Your task to perform on an android device: What's the weather today? Image 0: 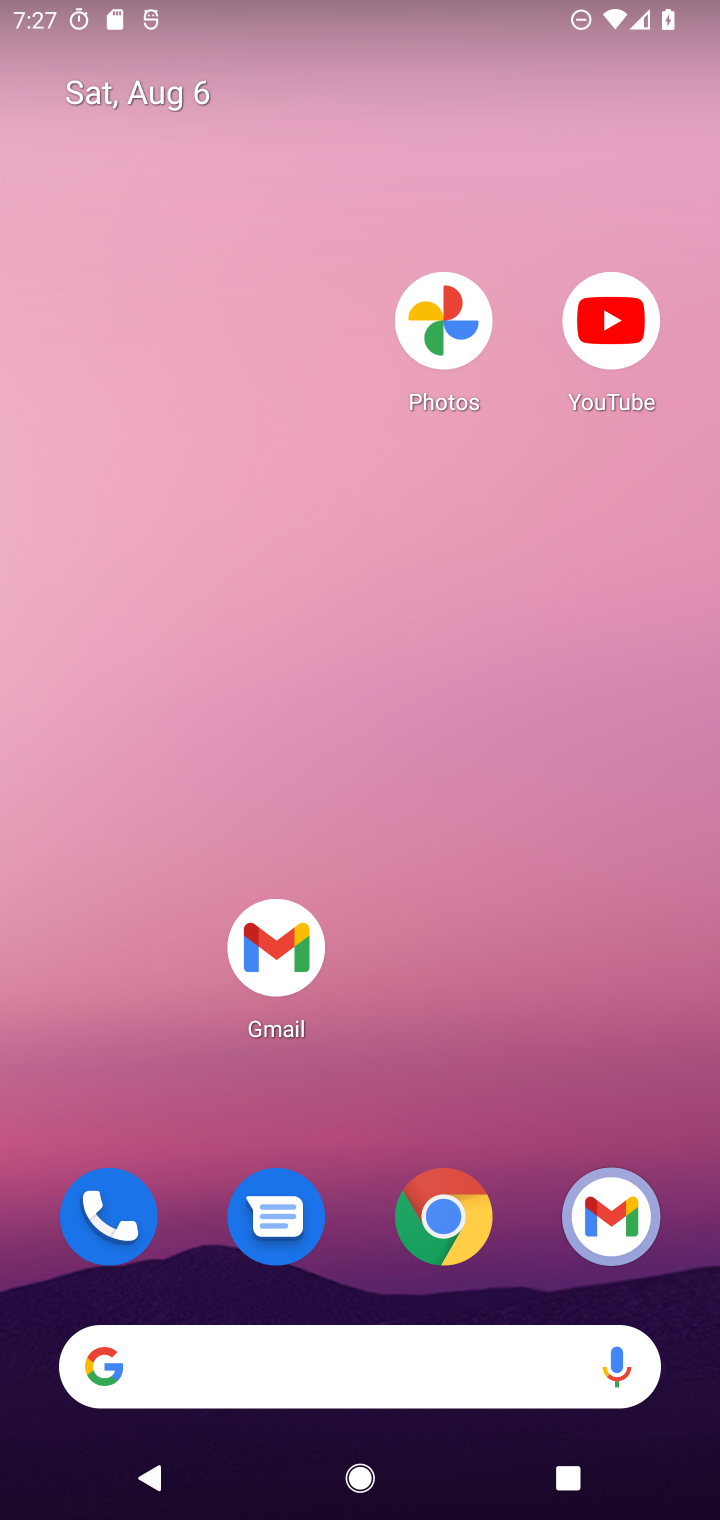
Step 0: drag from (518, 957) to (512, 369)
Your task to perform on an android device: What's the weather today? Image 1: 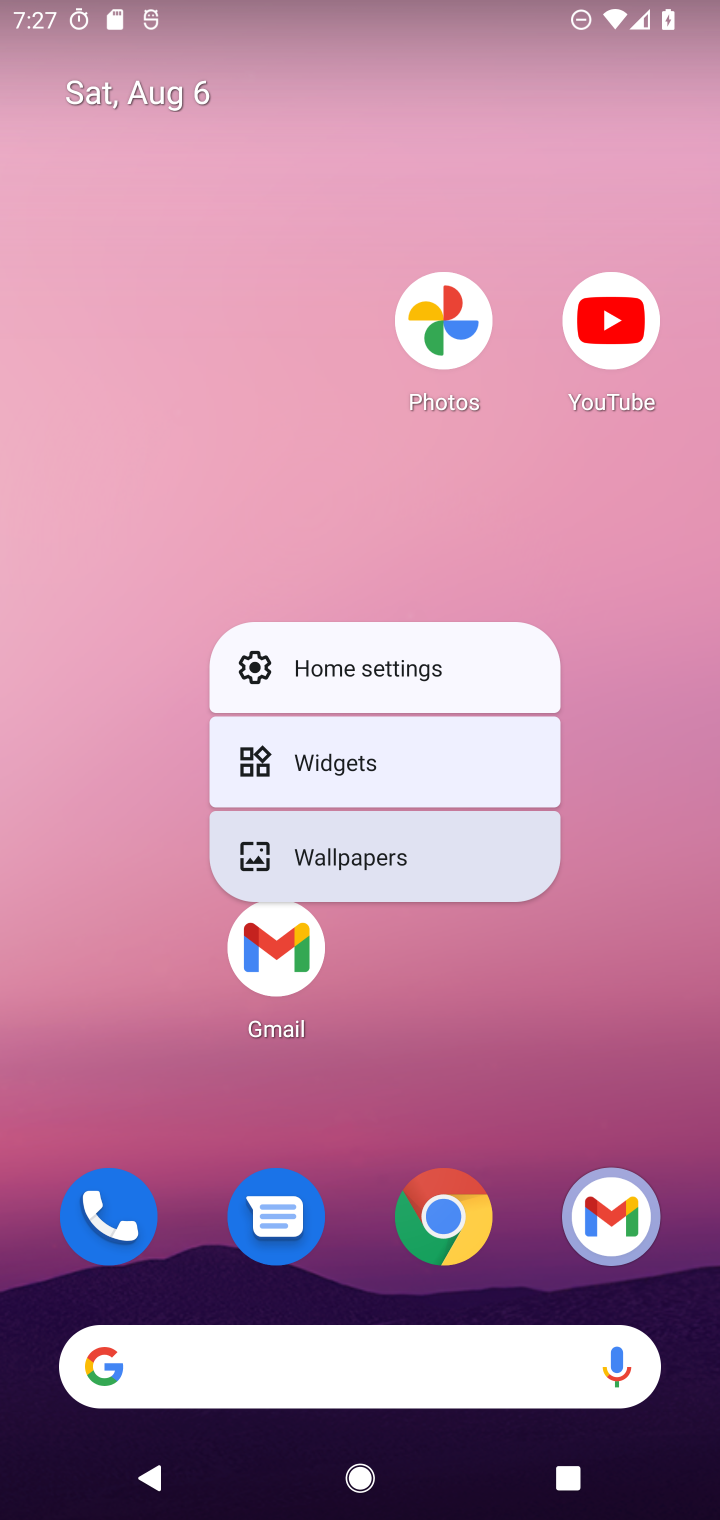
Step 1: click (537, 596)
Your task to perform on an android device: What's the weather today? Image 2: 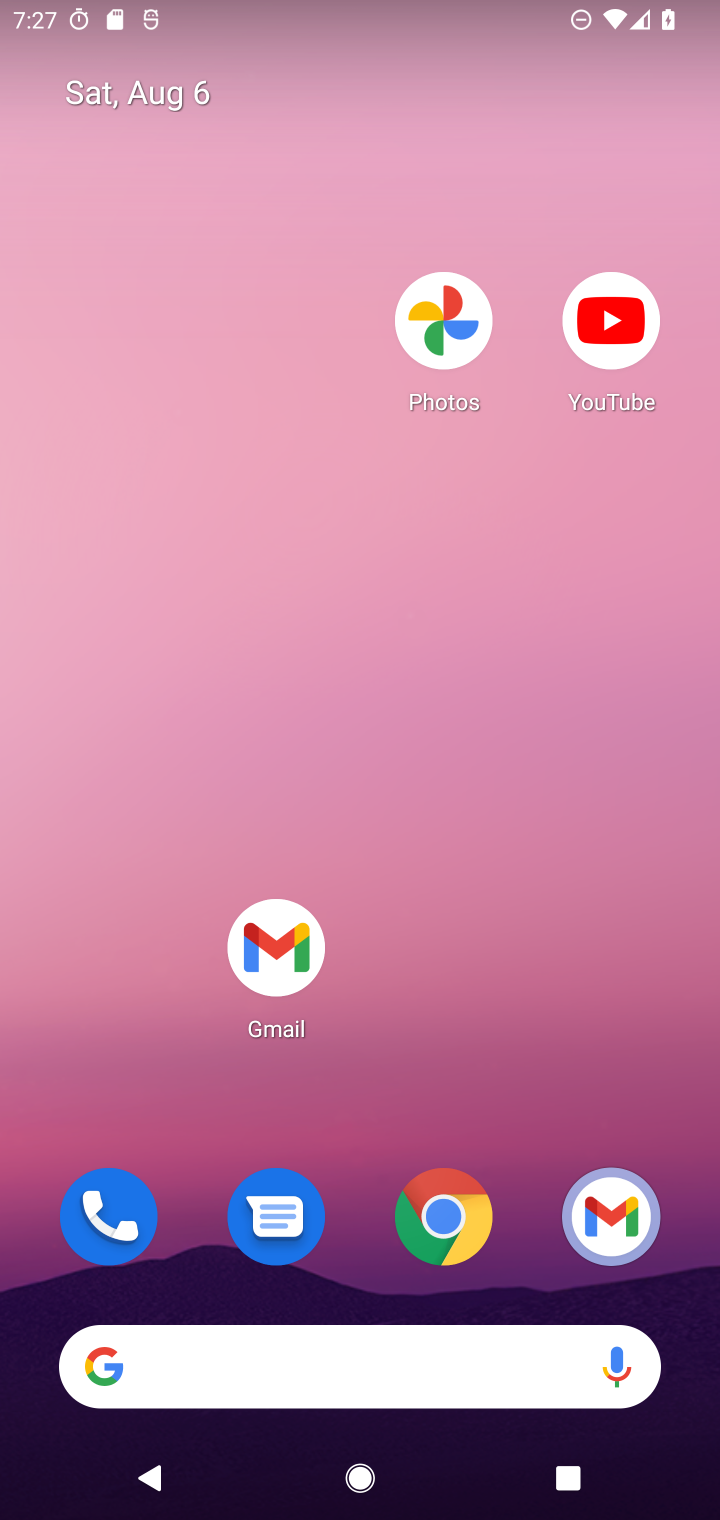
Step 2: drag from (539, 1179) to (500, 440)
Your task to perform on an android device: What's the weather today? Image 3: 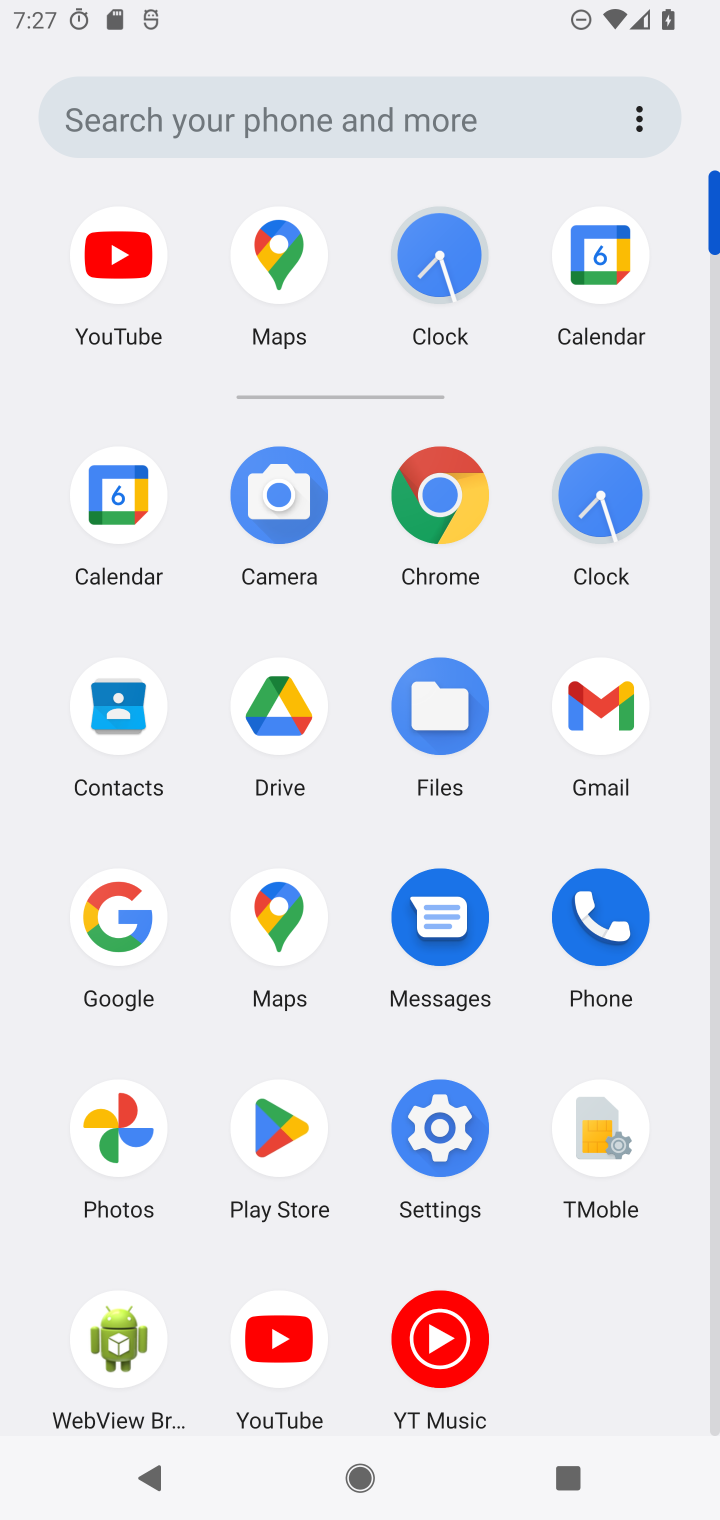
Step 3: click (439, 492)
Your task to perform on an android device: What's the weather today? Image 4: 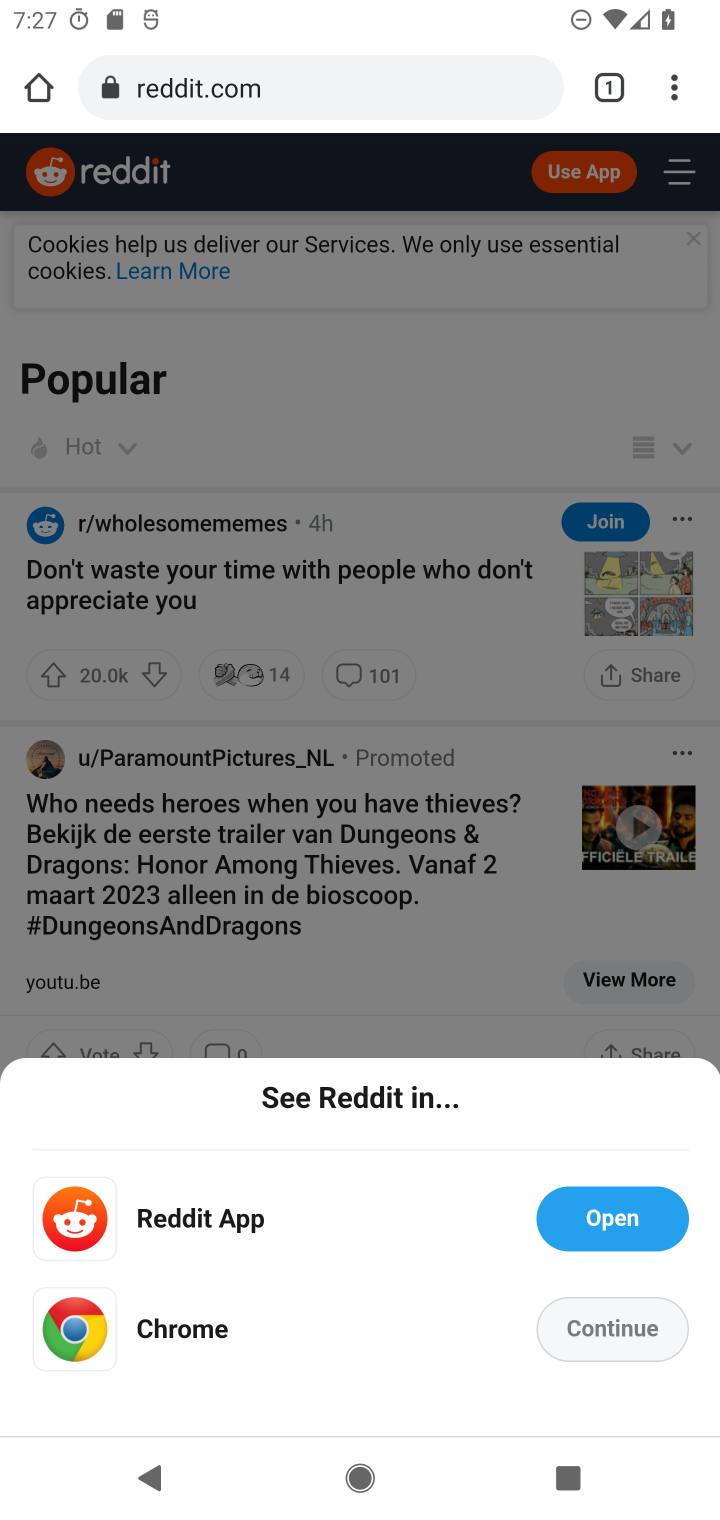
Step 4: click (463, 74)
Your task to perform on an android device: What's the weather today? Image 5: 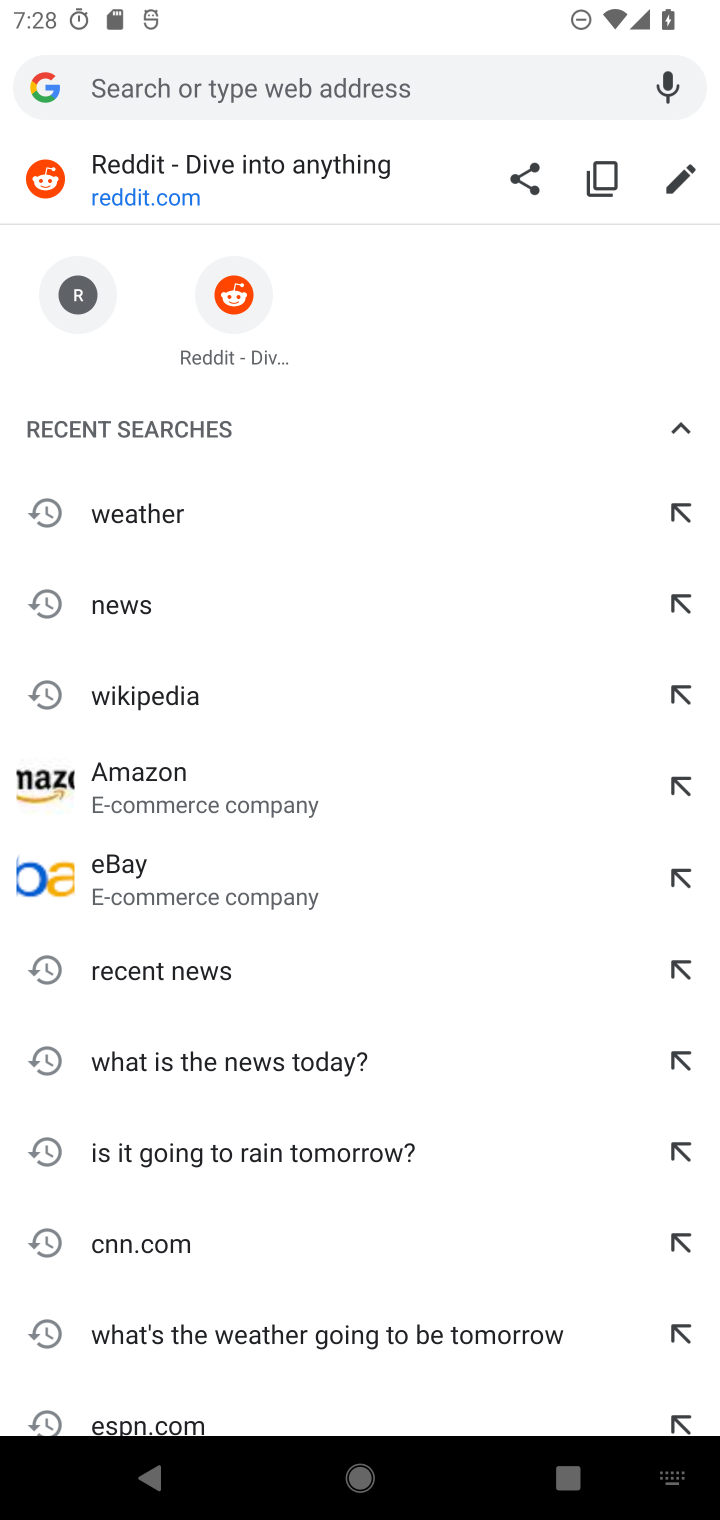
Step 5: type "weather"
Your task to perform on an android device: What's the weather today? Image 6: 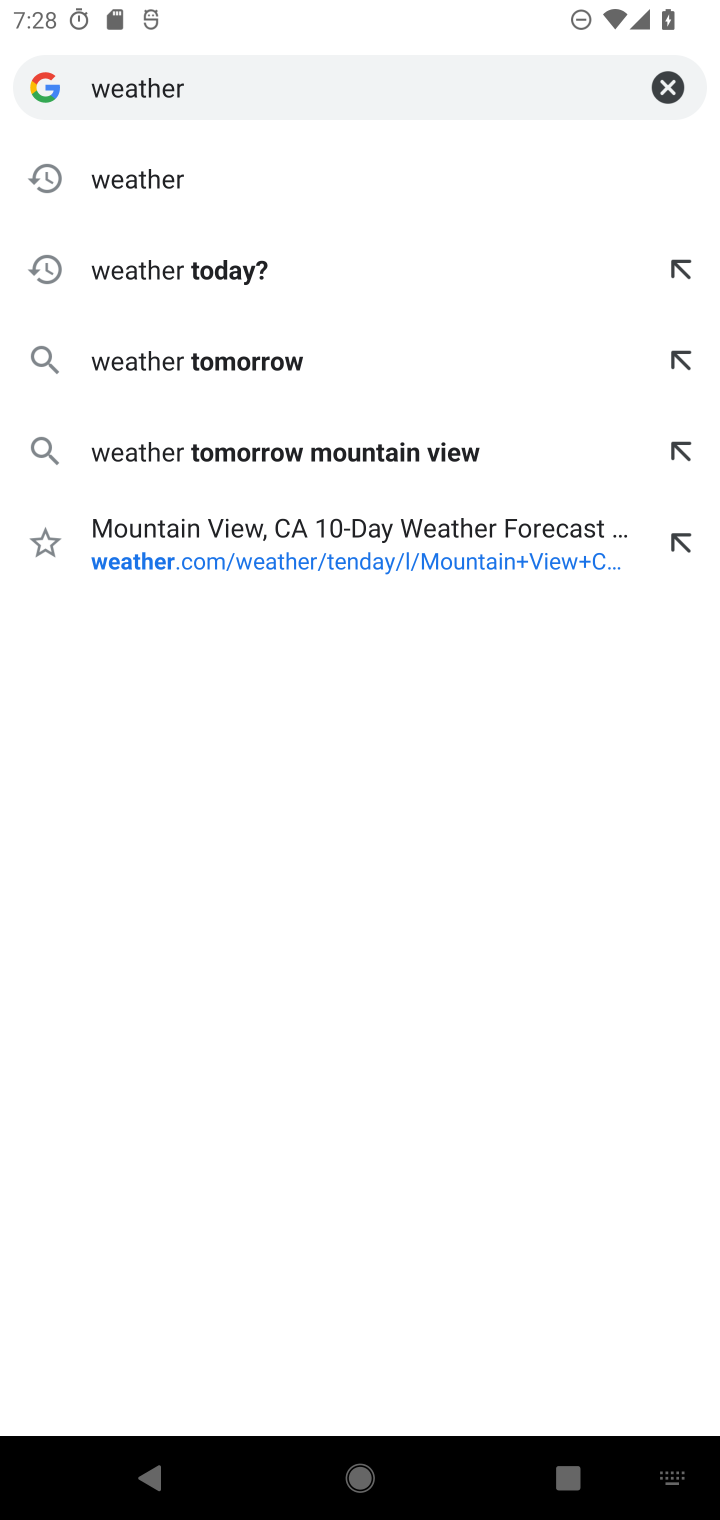
Step 6: click (152, 173)
Your task to perform on an android device: What's the weather today? Image 7: 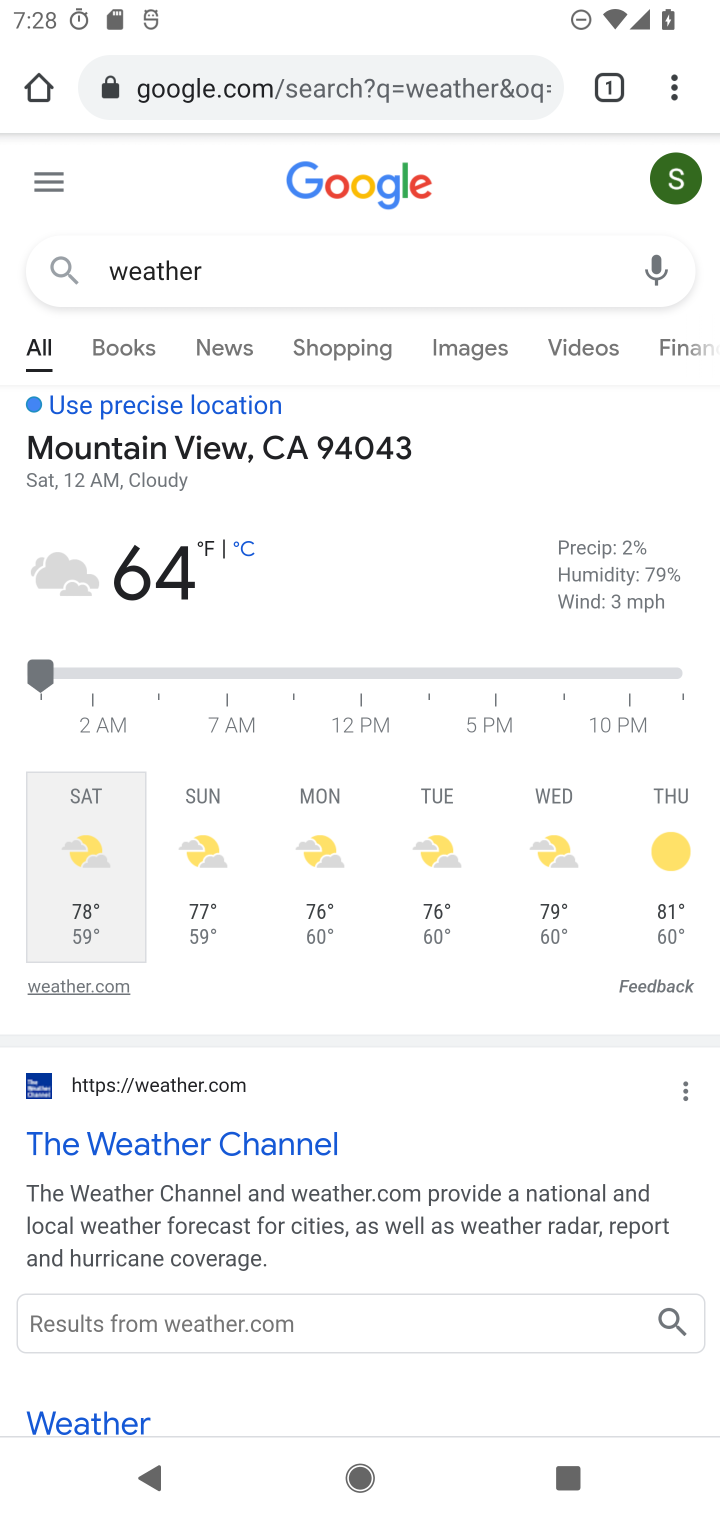
Step 7: task complete